Your task to perform on an android device: turn off data saver in the chrome app Image 0: 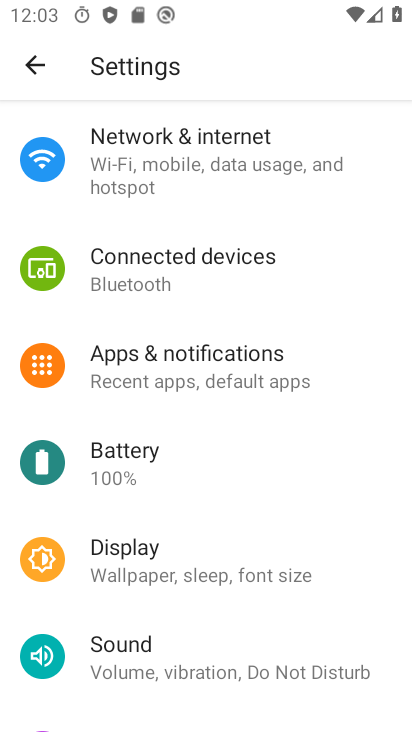
Step 0: press home button
Your task to perform on an android device: turn off data saver in the chrome app Image 1: 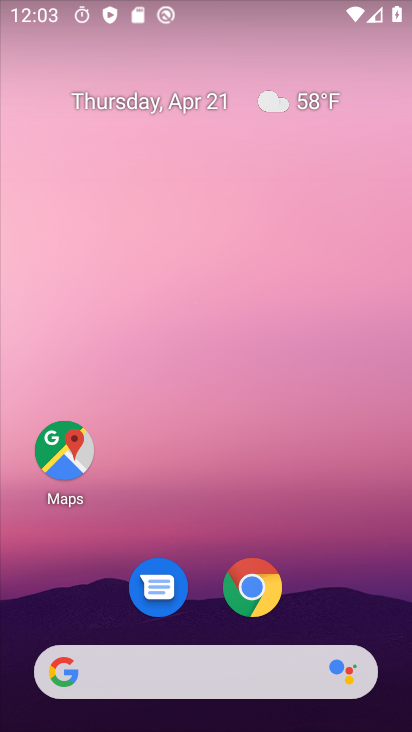
Step 1: drag from (215, 601) to (261, 5)
Your task to perform on an android device: turn off data saver in the chrome app Image 2: 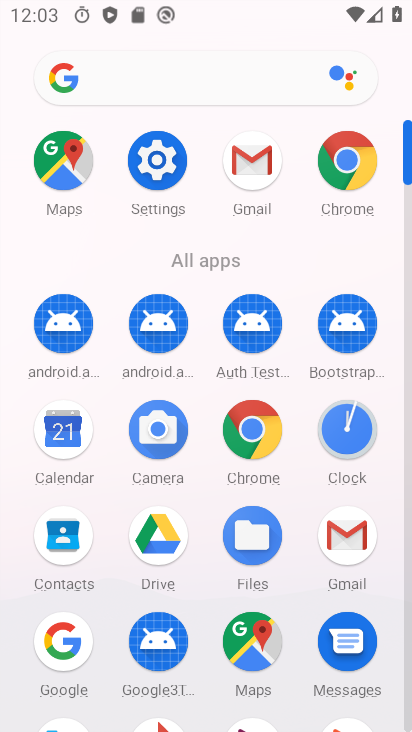
Step 2: click (355, 180)
Your task to perform on an android device: turn off data saver in the chrome app Image 3: 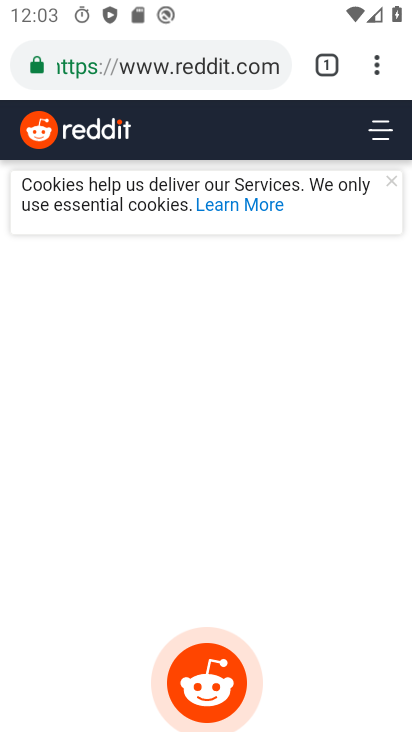
Step 3: click (381, 74)
Your task to perform on an android device: turn off data saver in the chrome app Image 4: 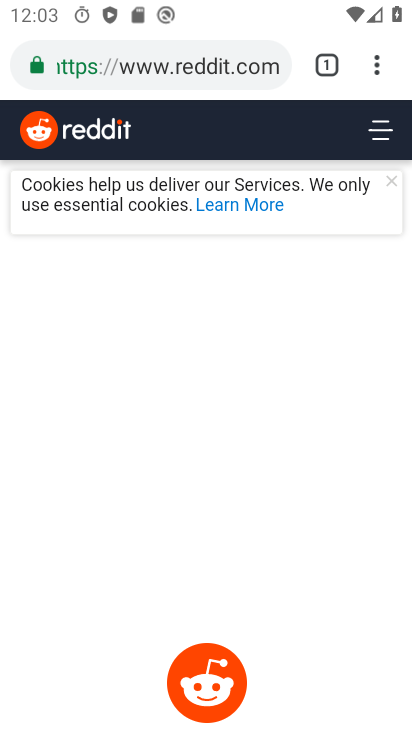
Step 4: click (372, 76)
Your task to perform on an android device: turn off data saver in the chrome app Image 5: 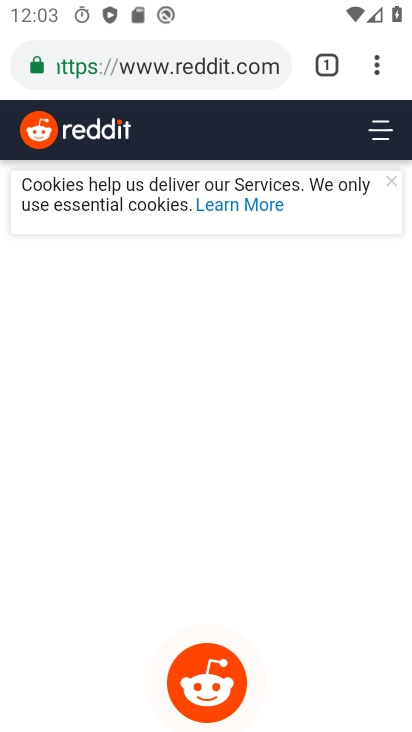
Step 5: click (384, 80)
Your task to perform on an android device: turn off data saver in the chrome app Image 6: 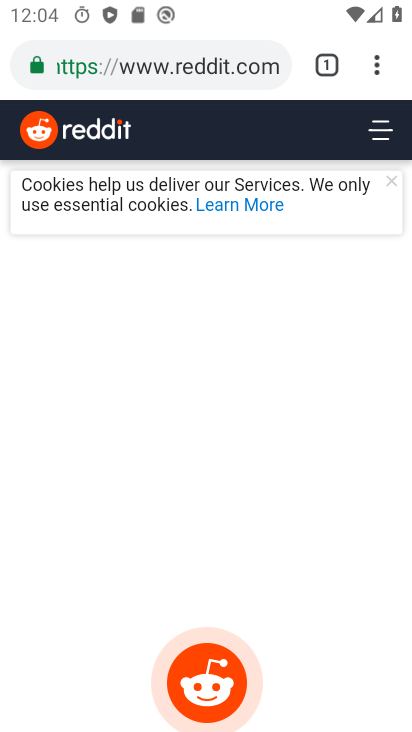
Step 6: click (374, 81)
Your task to perform on an android device: turn off data saver in the chrome app Image 7: 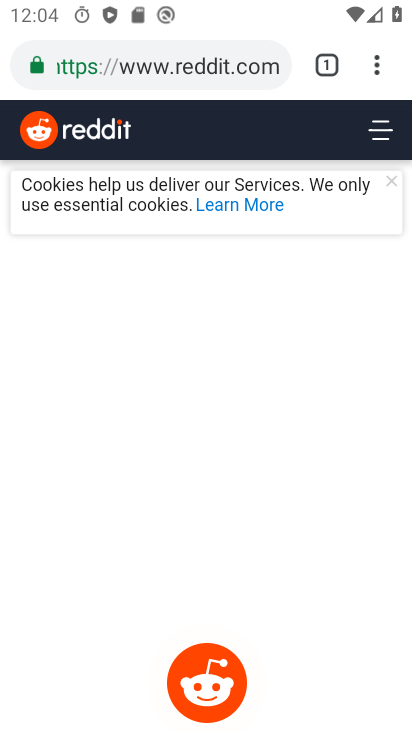
Step 7: click (380, 70)
Your task to perform on an android device: turn off data saver in the chrome app Image 8: 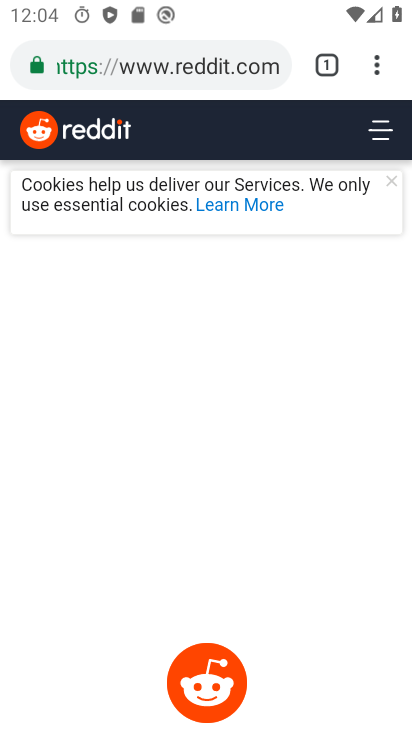
Step 8: click (367, 78)
Your task to perform on an android device: turn off data saver in the chrome app Image 9: 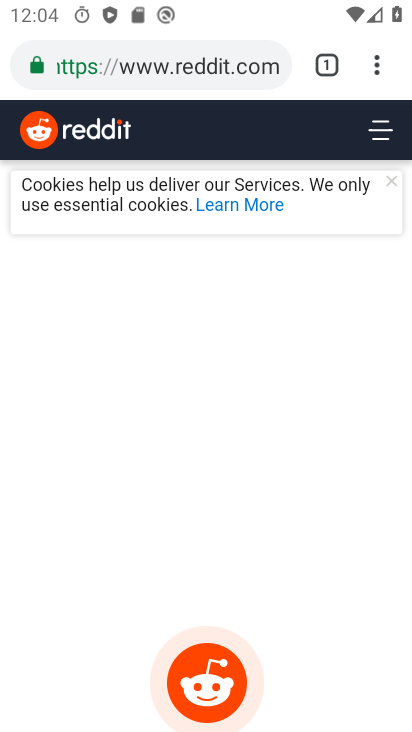
Step 9: click (378, 64)
Your task to perform on an android device: turn off data saver in the chrome app Image 10: 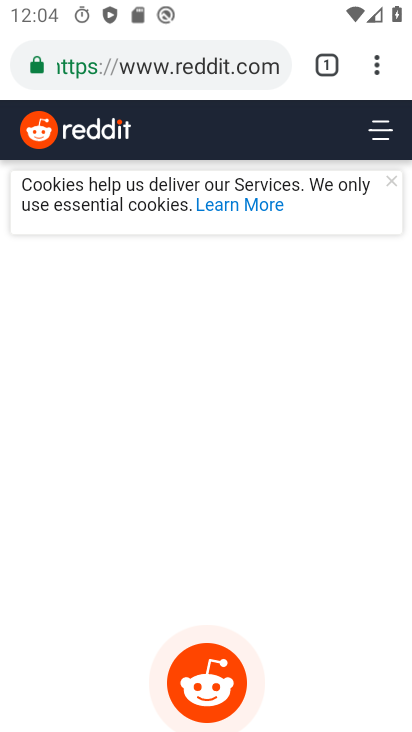
Step 10: click (380, 86)
Your task to perform on an android device: turn off data saver in the chrome app Image 11: 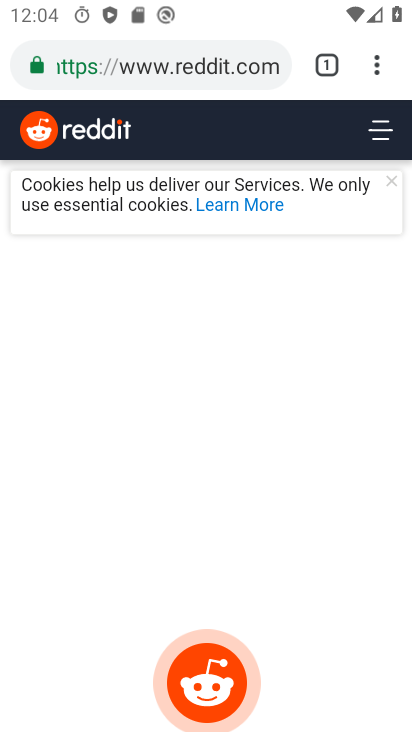
Step 11: click (378, 69)
Your task to perform on an android device: turn off data saver in the chrome app Image 12: 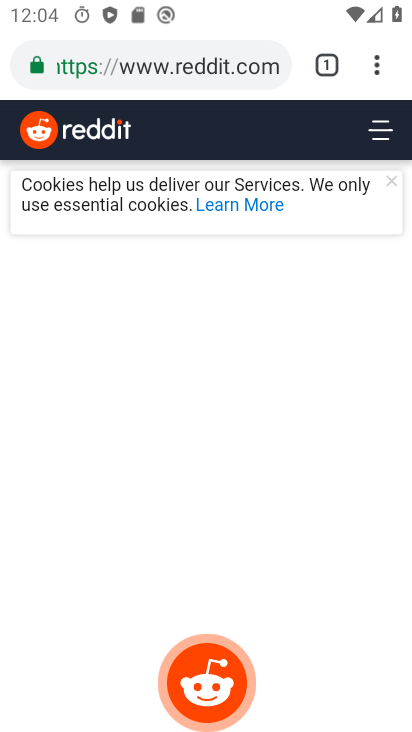
Step 12: click (383, 89)
Your task to perform on an android device: turn off data saver in the chrome app Image 13: 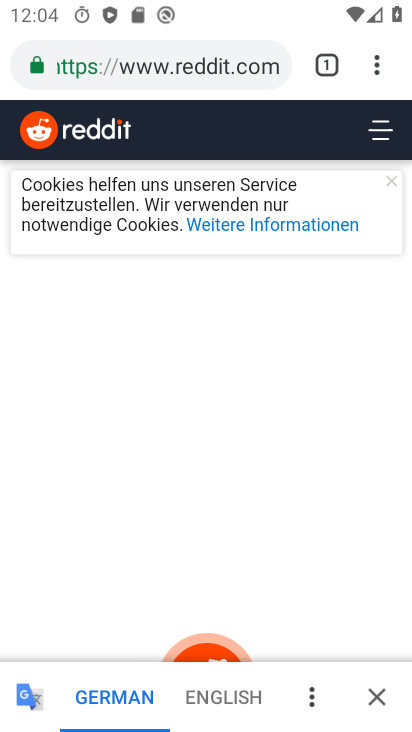
Step 13: click (380, 78)
Your task to perform on an android device: turn off data saver in the chrome app Image 14: 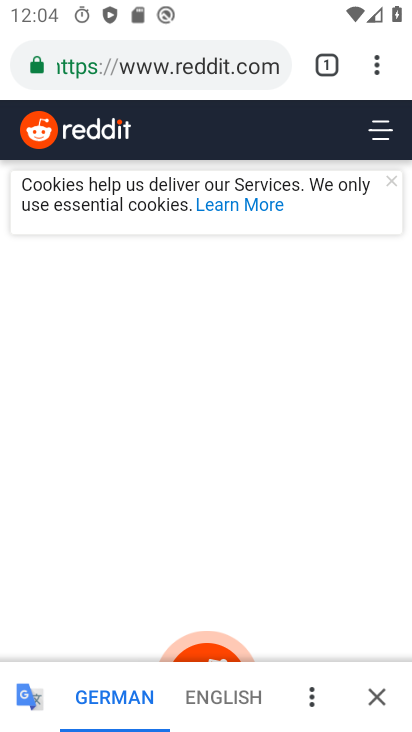
Step 14: click (380, 76)
Your task to perform on an android device: turn off data saver in the chrome app Image 15: 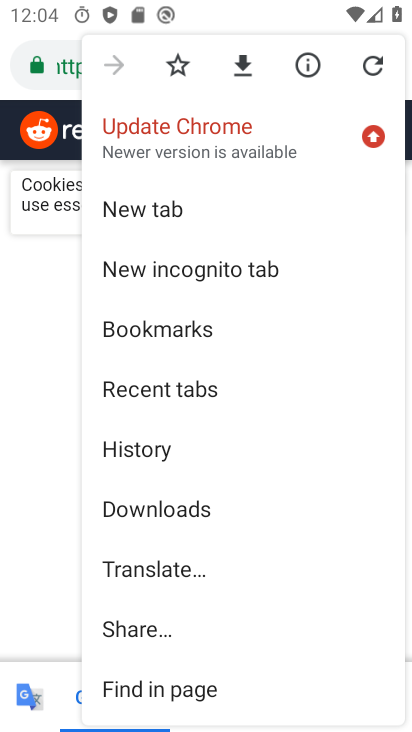
Step 15: drag from (158, 619) to (243, 218)
Your task to perform on an android device: turn off data saver in the chrome app Image 16: 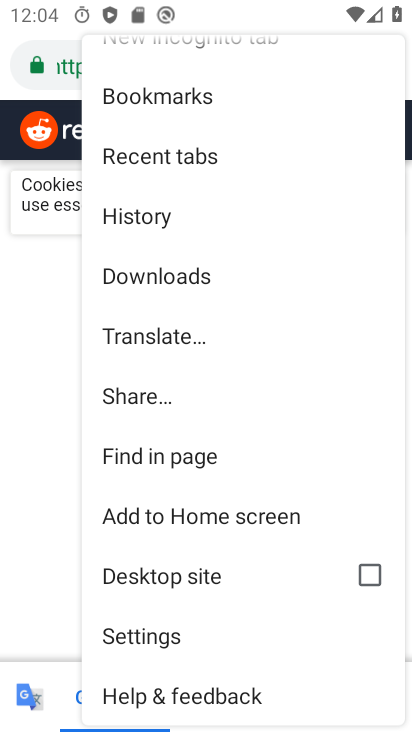
Step 16: click (151, 638)
Your task to perform on an android device: turn off data saver in the chrome app Image 17: 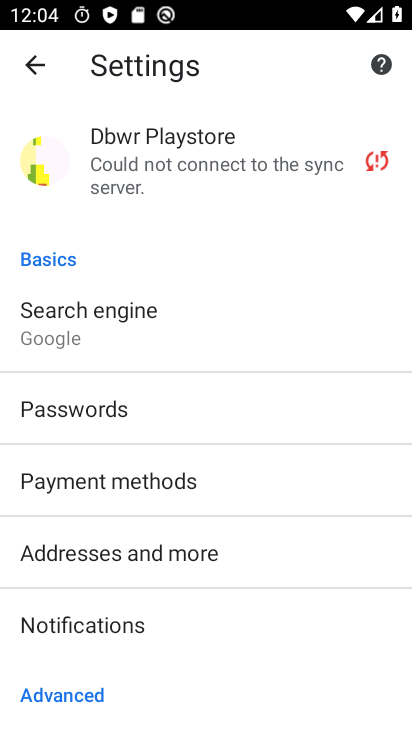
Step 17: drag from (128, 610) to (203, 111)
Your task to perform on an android device: turn off data saver in the chrome app Image 18: 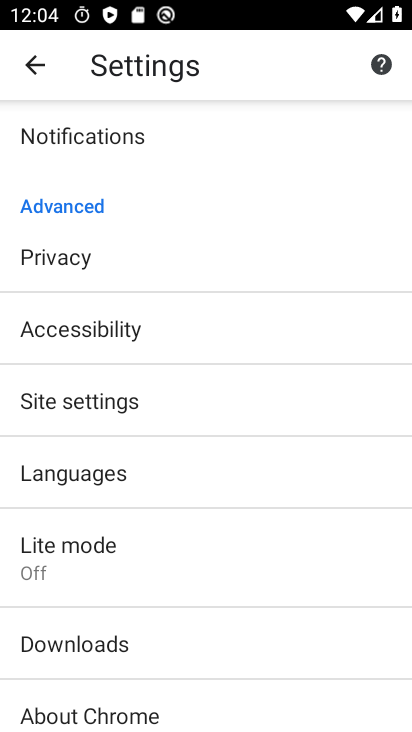
Step 18: click (79, 562)
Your task to perform on an android device: turn off data saver in the chrome app Image 19: 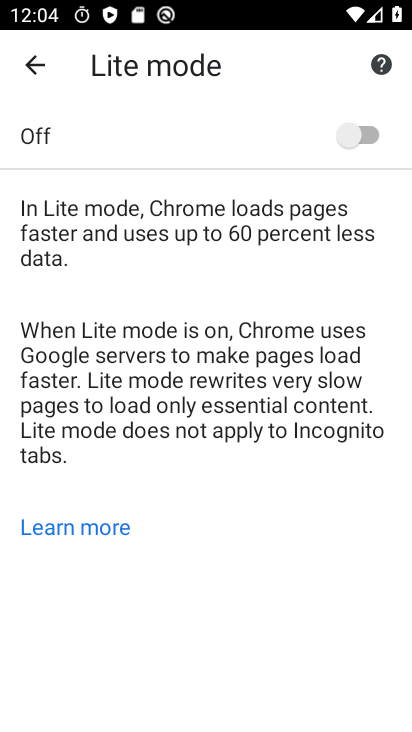
Step 19: task complete